Your task to perform on an android device: Show the shopping cart on target.com. Add "usb-a to usb-b" to the cart on target.com, then select checkout. Image 0: 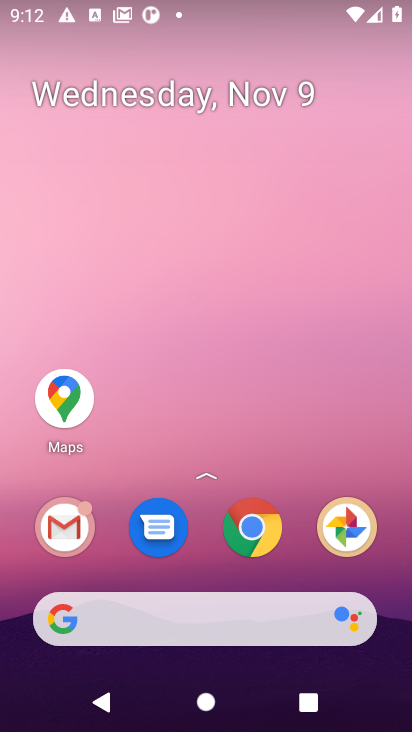
Step 0: click (249, 524)
Your task to perform on an android device: Show the shopping cart on target.com. Add "usb-a to usb-b" to the cart on target.com, then select checkout. Image 1: 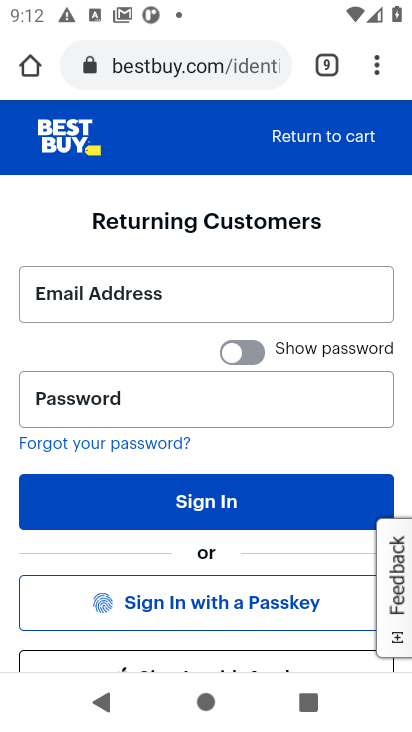
Step 1: click (165, 63)
Your task to perform on an android device: Show the shopping cart on target.com. Add "usb-a to usb-b" to the cart on target.com, then select checkout. Image 2: 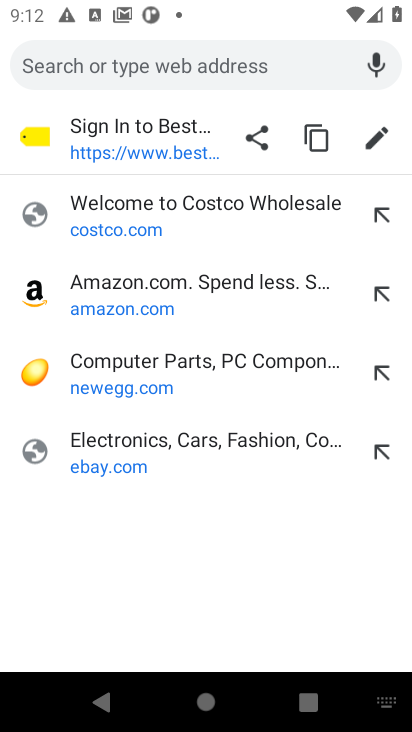
Step 2: type "target.com"
Your task to perform on an android device: Show the shopping cart on target.com. Add "usb-a to usb-b" to the cart on target.com, then select checkout. Image 3: 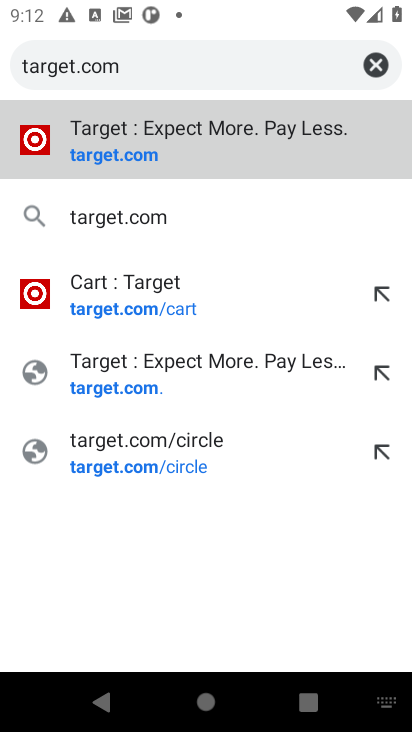
Step 3: click (134, 163)
Your task to perform on an android device: Show the shopping cart on target.com. Add "usb-a to usb-b" to the cart on target.com, then select checkout. Image 4: 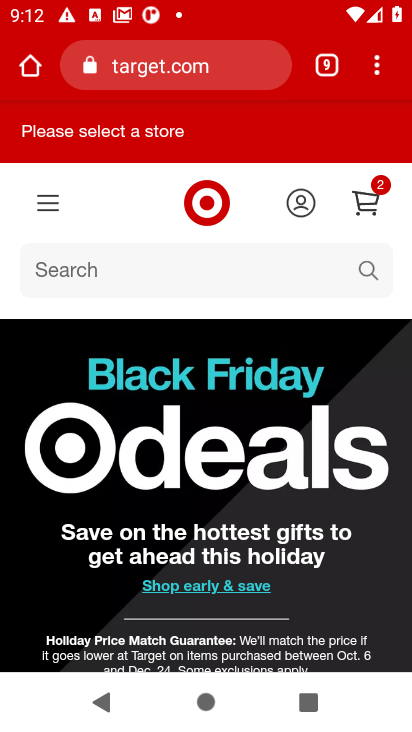
Step 4: click (363, 205)
Your task to perform on an android device: Show the shopping cart on target.com. Add "usb-a to usb-b" to the cart on target.com, then select checkout. Image 5: 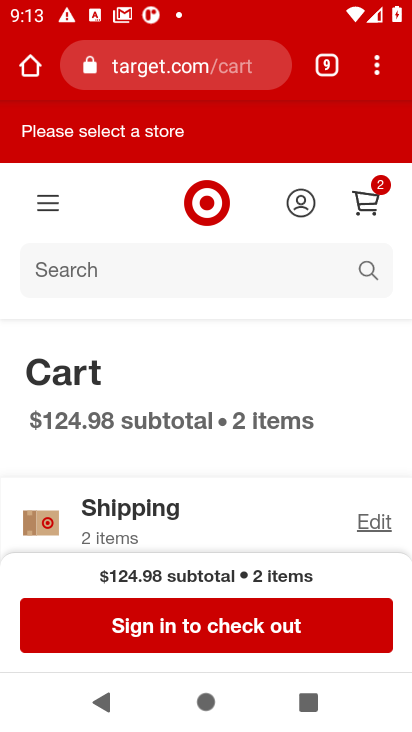
Step 5: drag from (237, 498) to (238, 303)
Your task to perform on an android device: Show the shopping cart on target.com. Add "usb-a to usb-b" to the cart on target.com, then select checkout. Image 6: 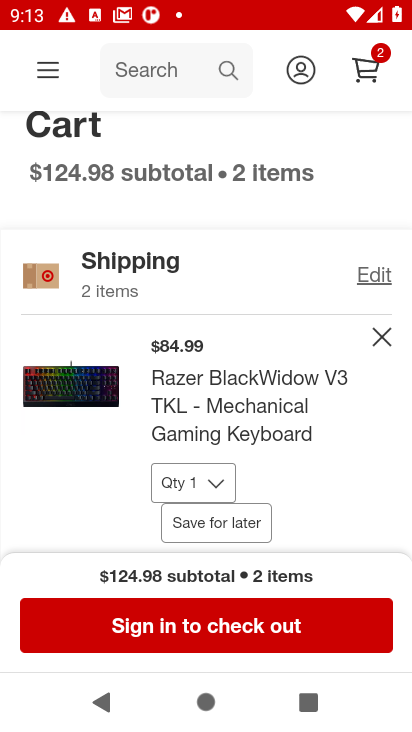
Step 6: click (228, 69)
Your task to perform on an android device: Show the shopping cart on target.com. Add "usb-a to usb-b" to the cart on target.com, then select checkout. Image 7: 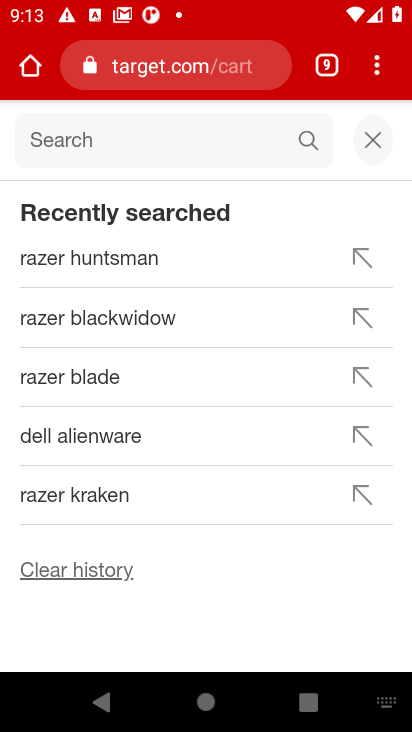
Step 7: type "usb-a to usb-b"
Your task to perform on an android device: Show the shopping cart on target.com. Add "usb-a to usb-b" to the cart on target.com, then select checkout. Image 8: 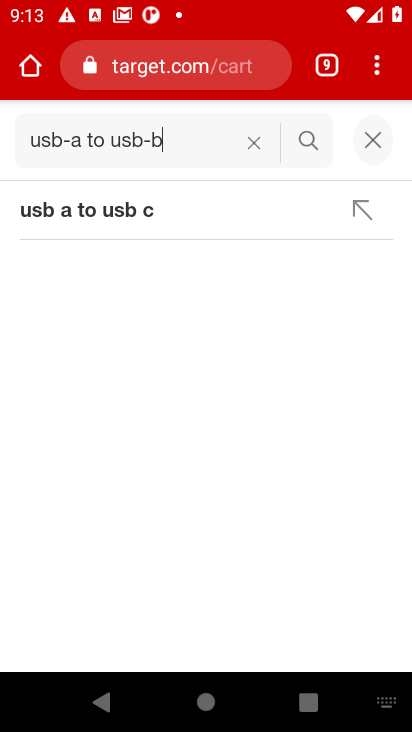
Step 8: click (309, 138)
Your task to perform on an android device: Show the shopping cart on target.com. Add "usb-a to usb-b" to the cart on target.com, then select checkout. Image 9: 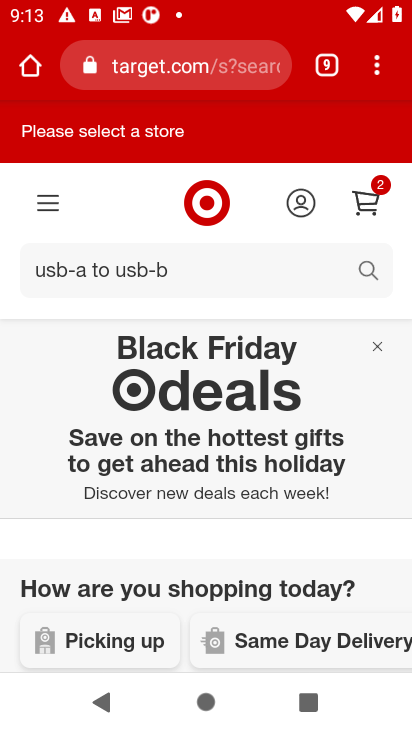
Step 9: drag from (197, 498) to (181, 233)
Your task to perform on an android device: Show the shopping cart on target.com. Add "usb-a to usb-b" to the cart on target.com, then select checkout. Image 10: 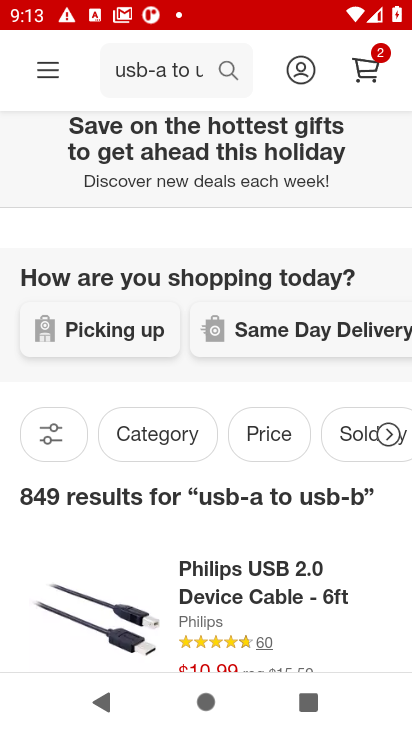
Step 10: drag from (173, 524) to (165, 246)
Your task to perform on an android device: Show the shopping cart on target.com. Add "usb-a to usb-b" to the cart on target.com, then select checkout. Image 11: 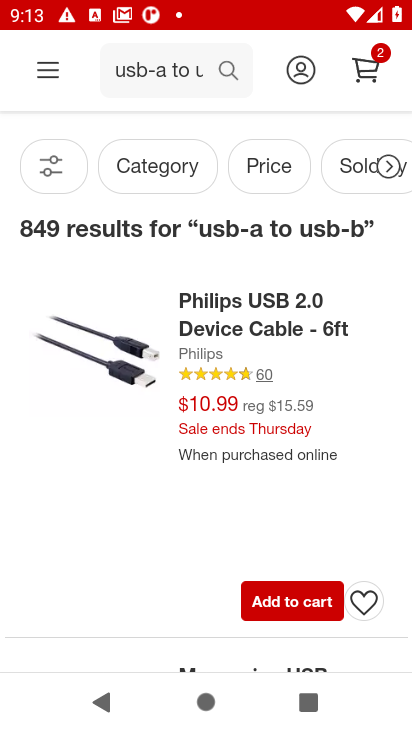
Step 11: drag from (158, 476) to (158, 240)
Your task to perform on an android device: Show the shopping cart on target.com. Add "usb-a to usb-b" to the cart on target.com, then select checkout. Image 12: 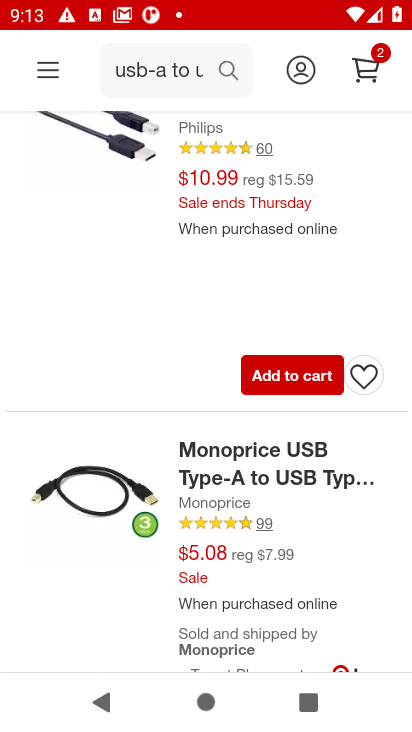
Step 12: drag from (147, 535) to (154, 393)
Your task to perform on an android device: Show the shopping cart on target.com. Add "usb-a to usb-b" to the cart on target.com, then select checkout. Image 13: 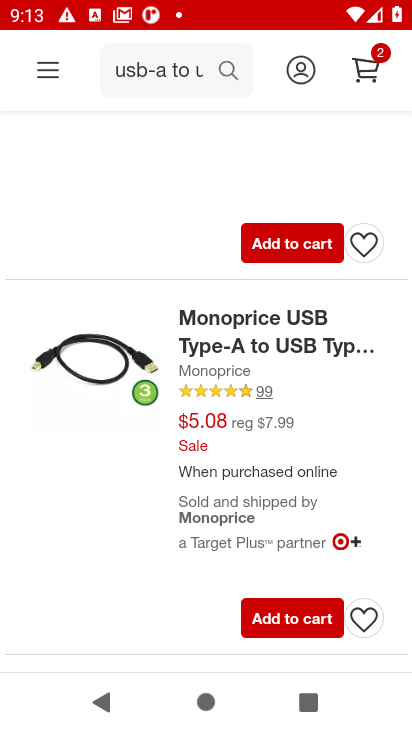
Step 13: click (103, 378)
Your task to perform on an android device: Show the shopping cart on target.com. Add "usb-a to usb-b" to the cart on target.com, then select checkout. Image 14: 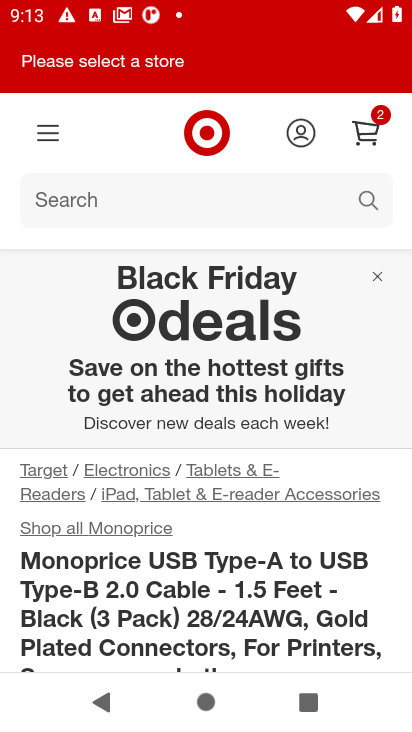
Step 14: drag from (152, 581) to (149, 240)
Your task to perform on an android device: Show the shopping cart on target.com. Add "usb-a to usb-b" to the cart on target.com, then select checkout. Image 15: 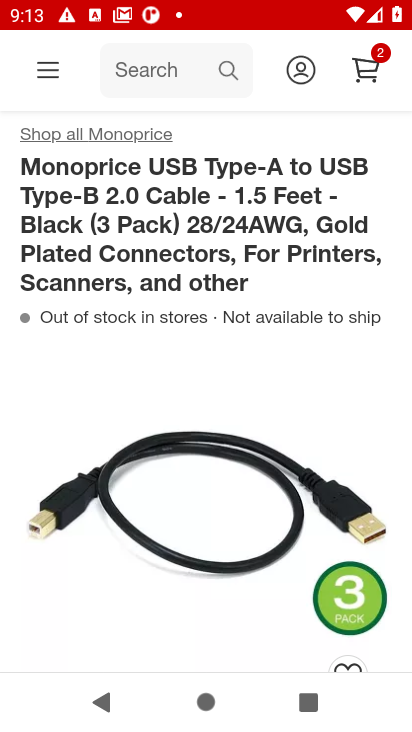
Step 15: drag from (157, 521) to (176, 324)
Your task to perform on an android device: Show the shopping cart on target.com. Add "usb-a to usb-b" to the cart on target.com, then select checkout. Image 16: 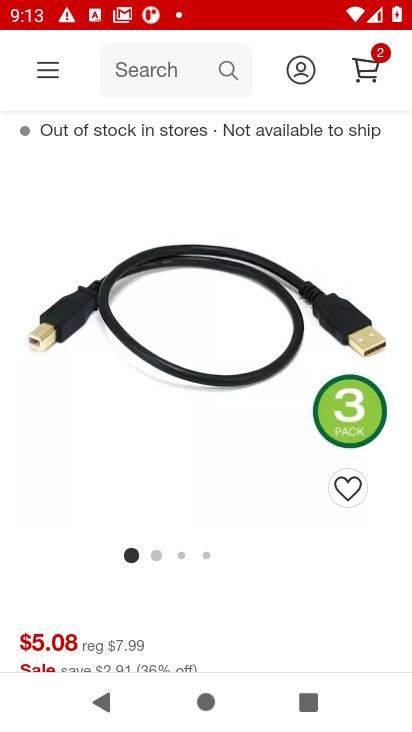
Step 16: drag from (206, 528) to (185, 225)
Your task to perform on an android device: Show the shopping cart on target.com. Add "usb-a to usb-b" to the cart on target.com, then select checkout. Image 17: 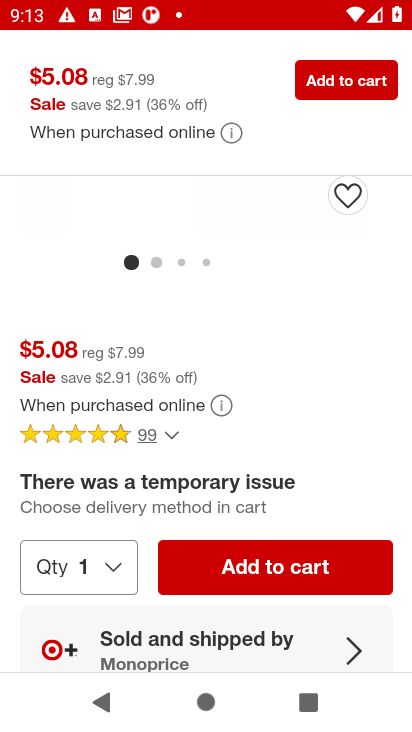
Step 17: click (271, 566)
Your task to perform on an android device: Show the shopping cart on target.com. Add "usb-a to usb-b" to the cart on target.com, then select checkout. Image 18: 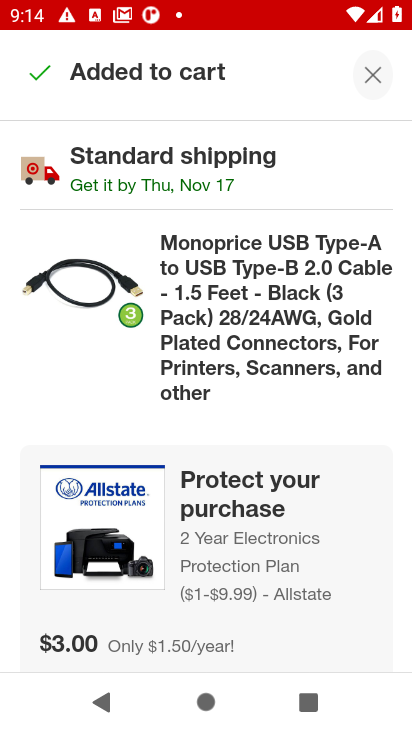
Step 18: click (368, 71)
Your task to perform on an android device: Show the shopping cart on target.com. Add "usb-a to usb-b" to the cart on target.com, then select checkout. Image 19: 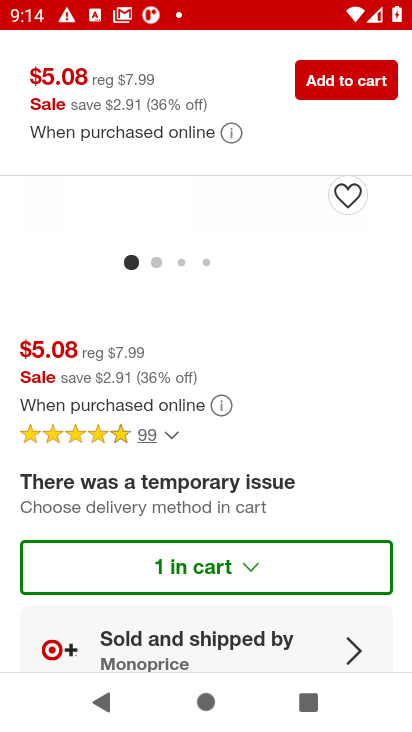
Step 19: drag from (303, 223) to (298, 676)
Your task to perform on an android device: Show the shopping cart on target.com. Add "usb-a to usb-b" to the cart on target.com, then select checkout. Image 20: 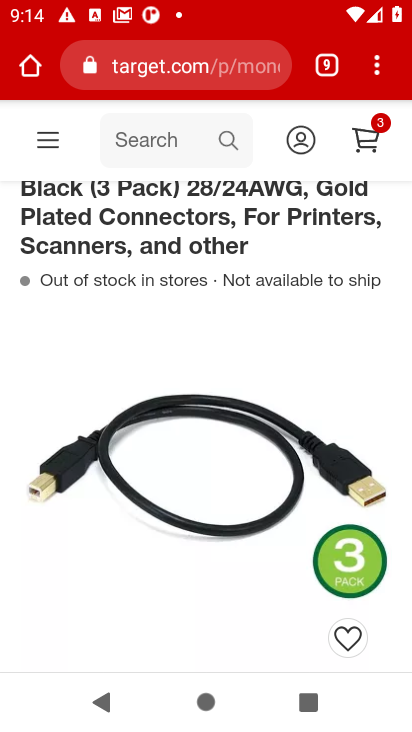
Step 20: drag from (207, 233) to (215, 544)
Your task to perform on an android device: Show the shopping cart on target.com. Add "usb-a to usb-b" to the cart on target.com, then select checkout. Image 21: 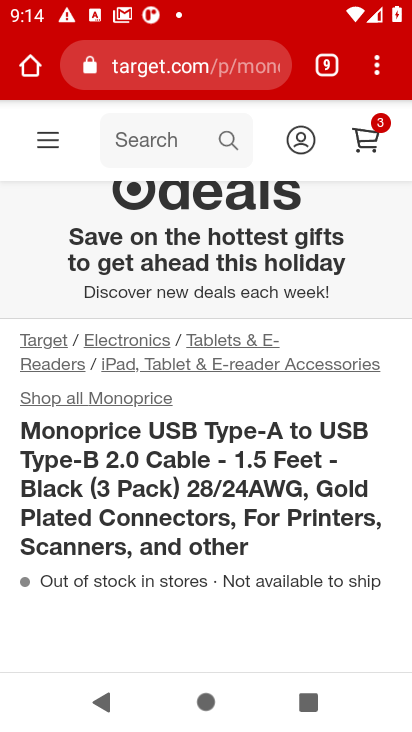
Step 21: click (358, 139)
Your task to perform on an android device: Show the shopping cart on target.com. Add "usb-a to usb-b" to the cart on target.com, then select checkout. Image 22: 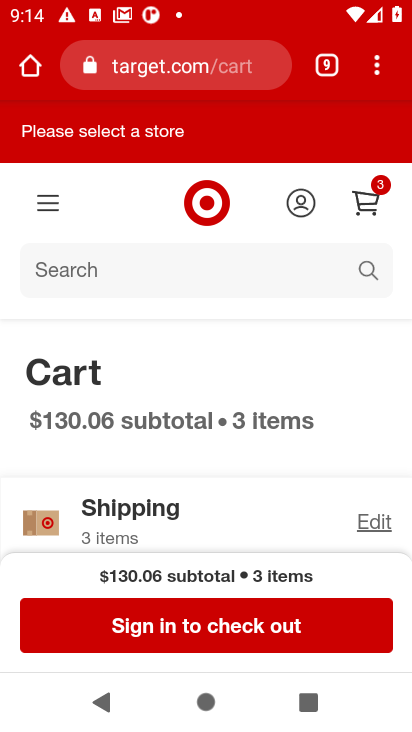
Step 22: click (223, 628)
Your task to perform on an android device: Show the shopping cart on target.com. Add "usb-a to usb-b" to the cart on target.com, then select checkout. Image 23: 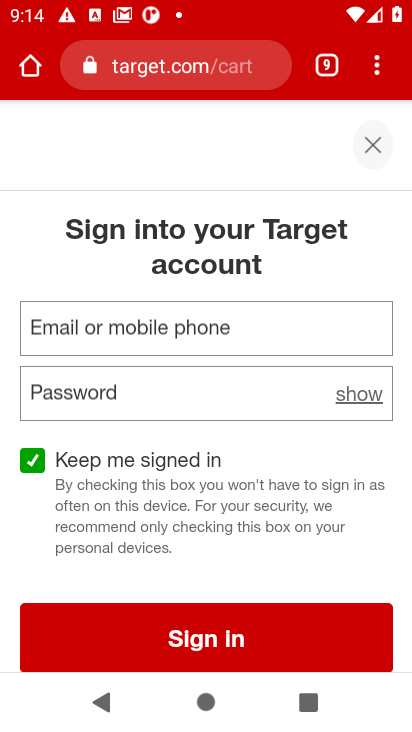
Step 23: task complete